Your task to perform on an android device: What's the news about the US stock market? Image 0: 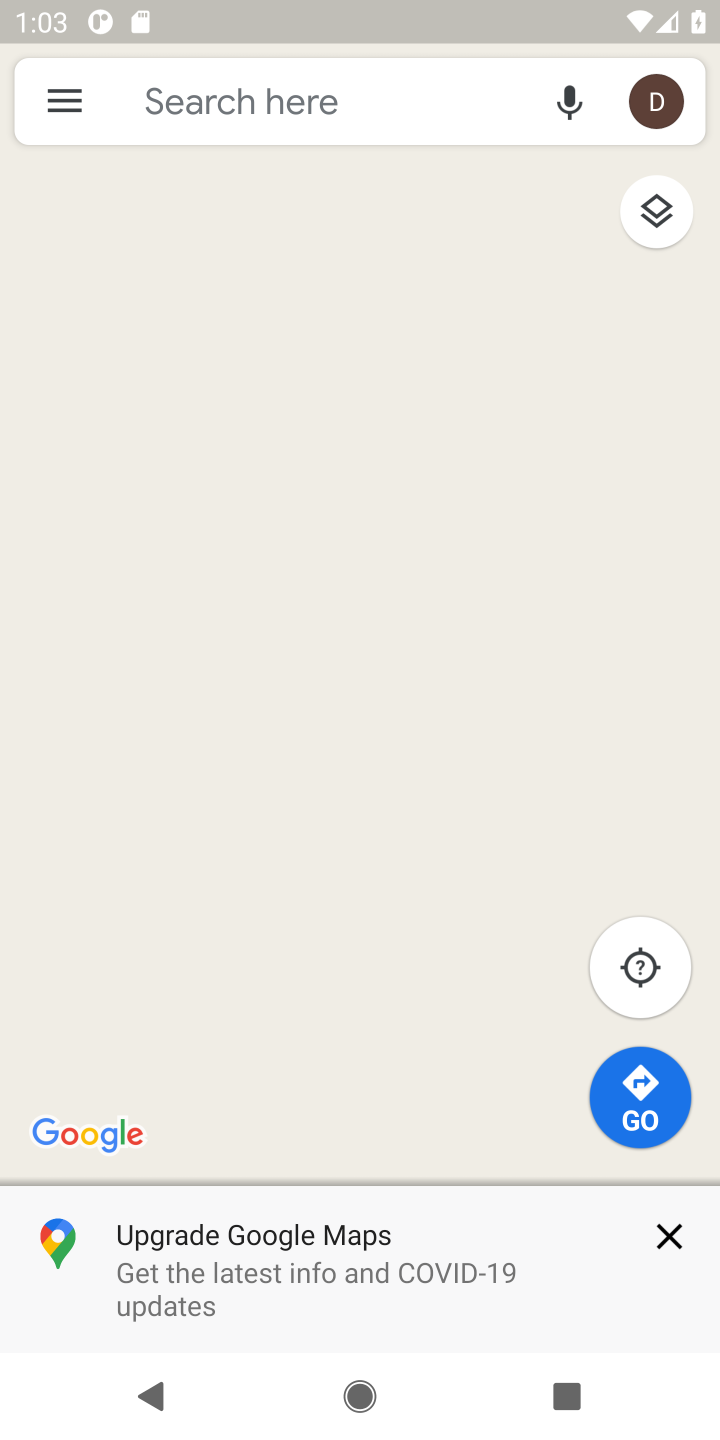
Step 0: press home button
Your task to perform on an android device: What's the news about the US stock market? Image 1: 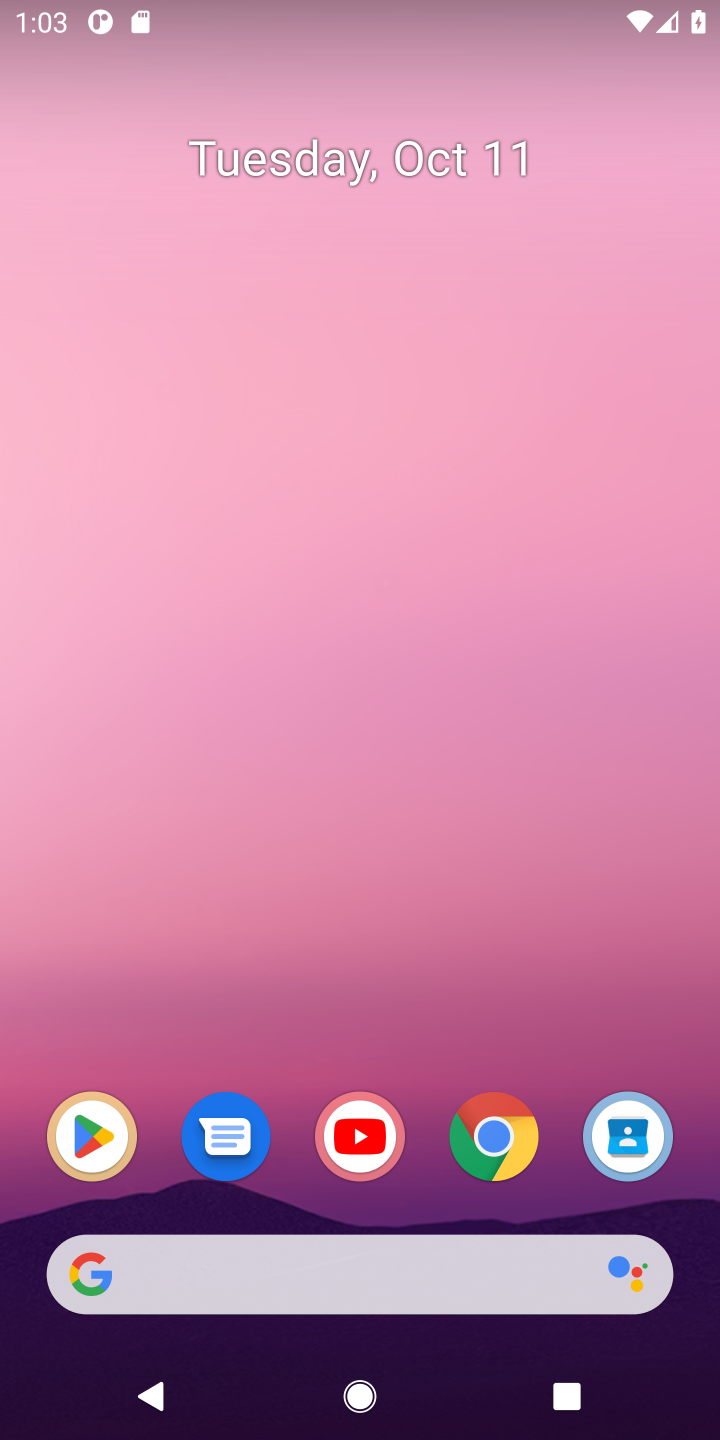
Step 1: click (279, 1274)
Your task to perform on an android device: What's the news about the US stock market? Image 2: 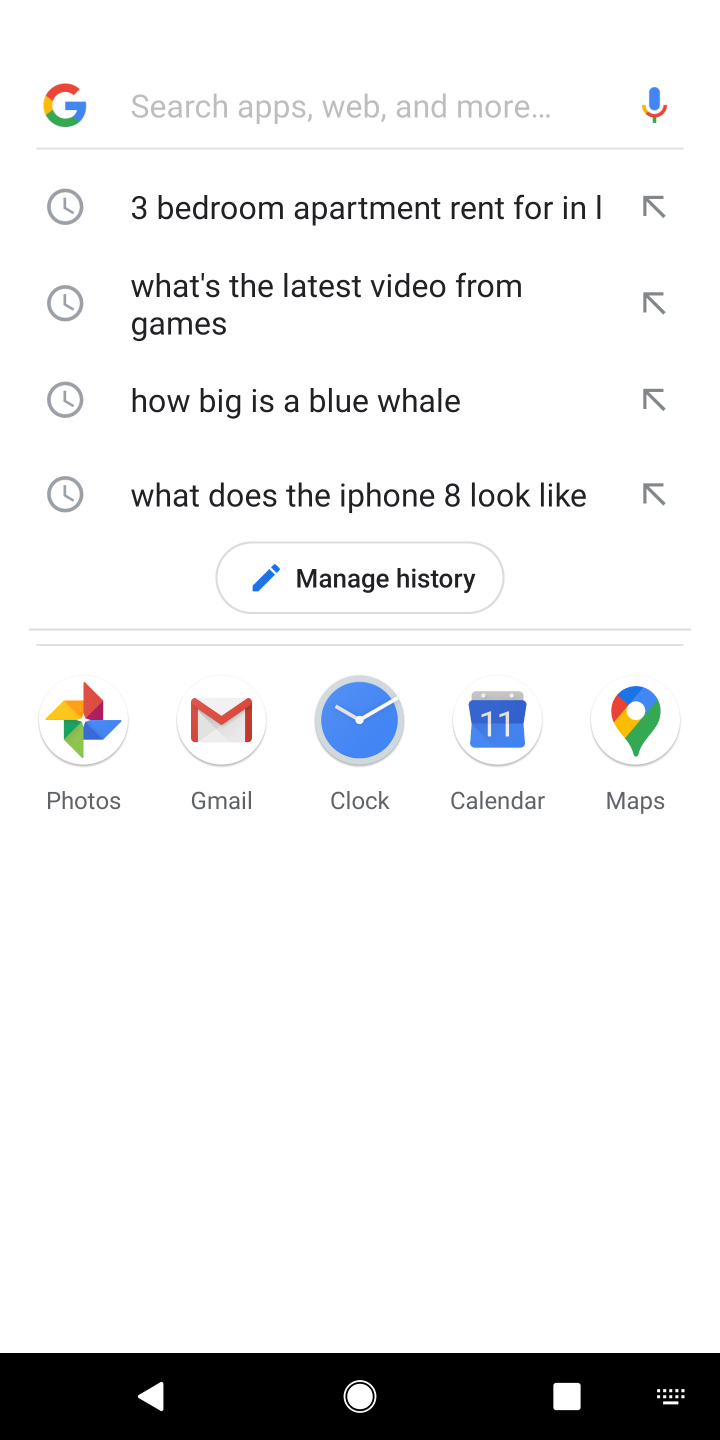
Step 2: press enter
Your task to perform on an android device: What's the news about the US stock market? Image 3: 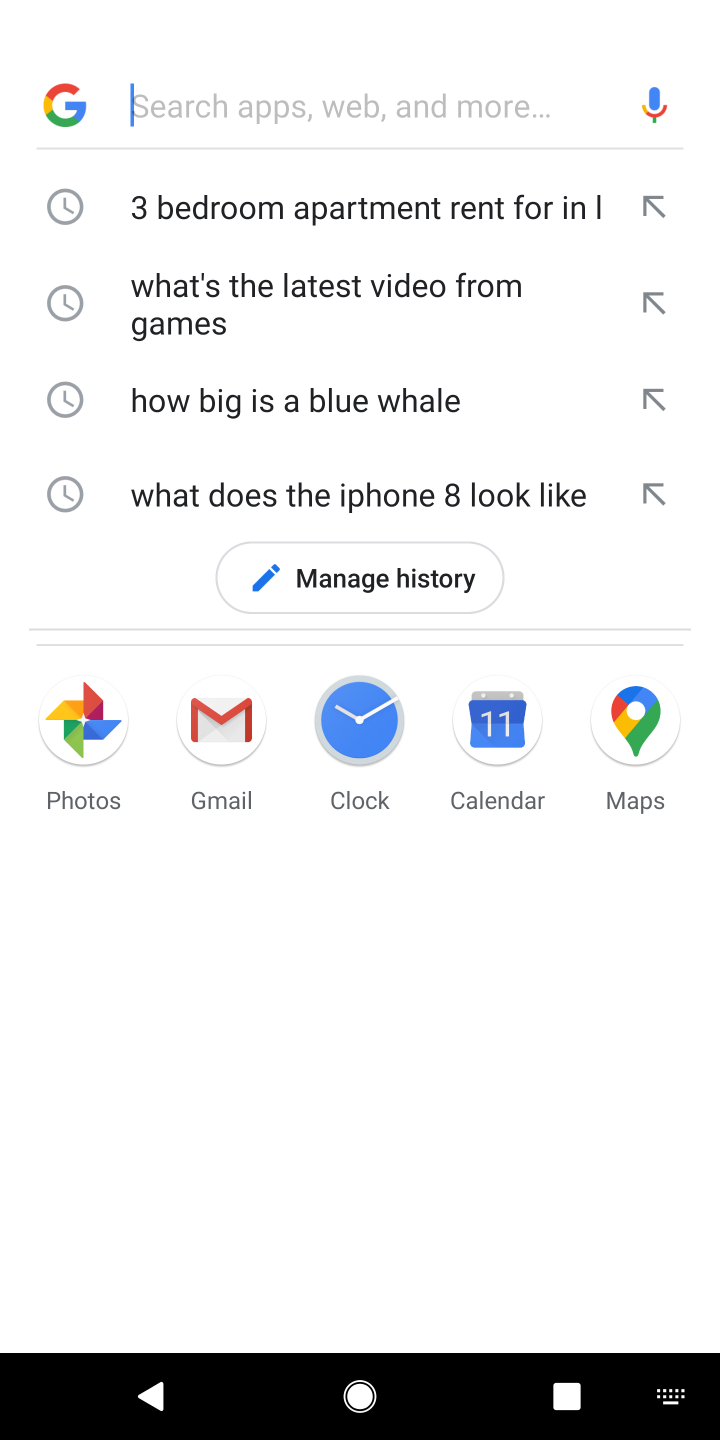
Step 3: type "What's the news about the US stock market"
Your task to perform on an android device: What's the news about the US stock market? Image 4: 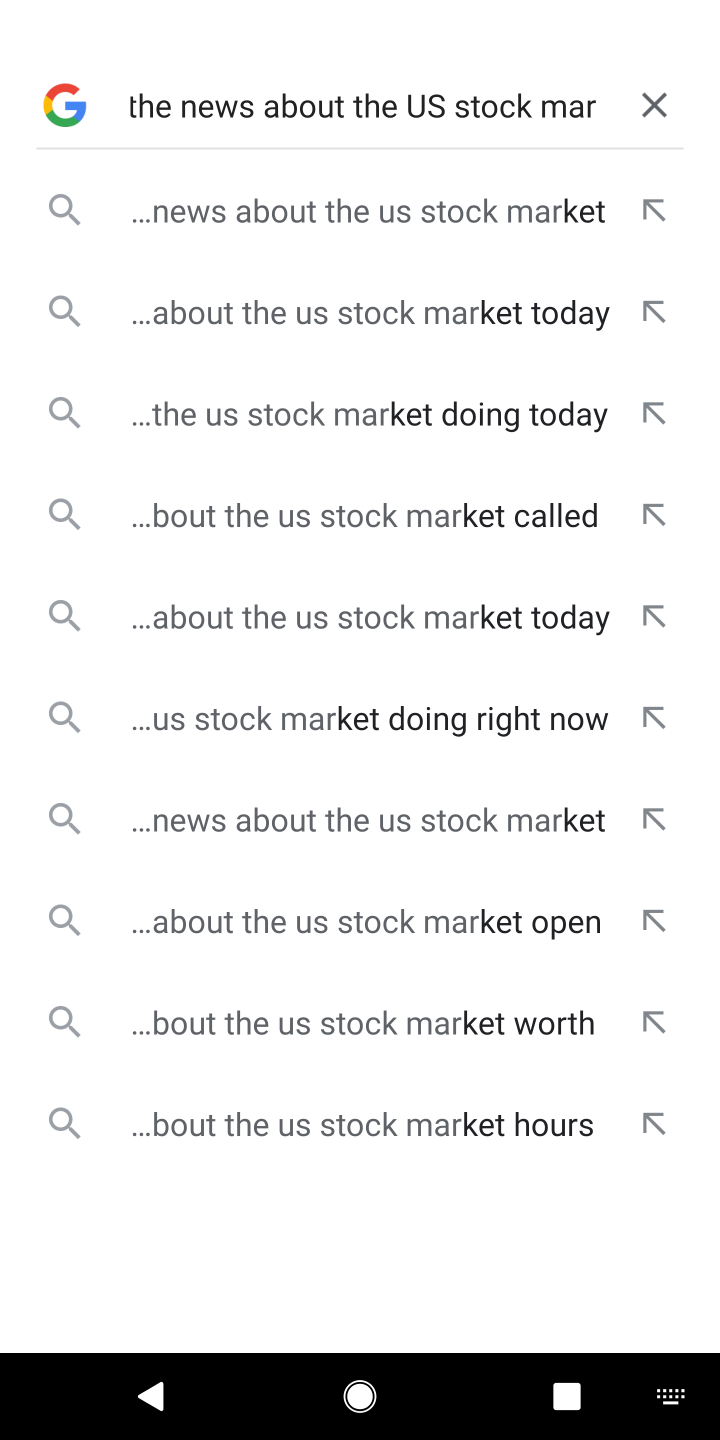
Step 4: press enter
Your task to perform on an android device: What's the news about the US stock market? Image 5: 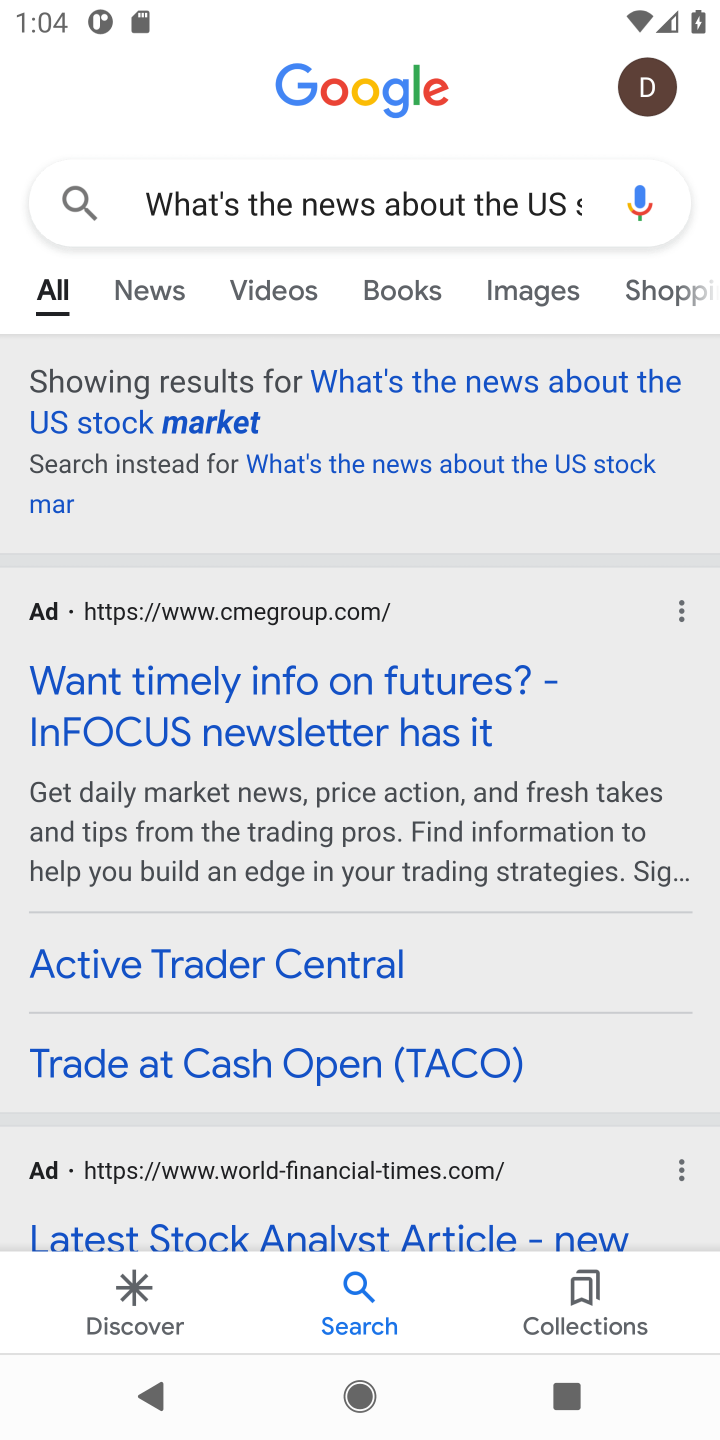
Step 5: drag from (542, 1084) to (510, 506)
Your task to perform on an android device: What's the news about the US stock market? Image 6: 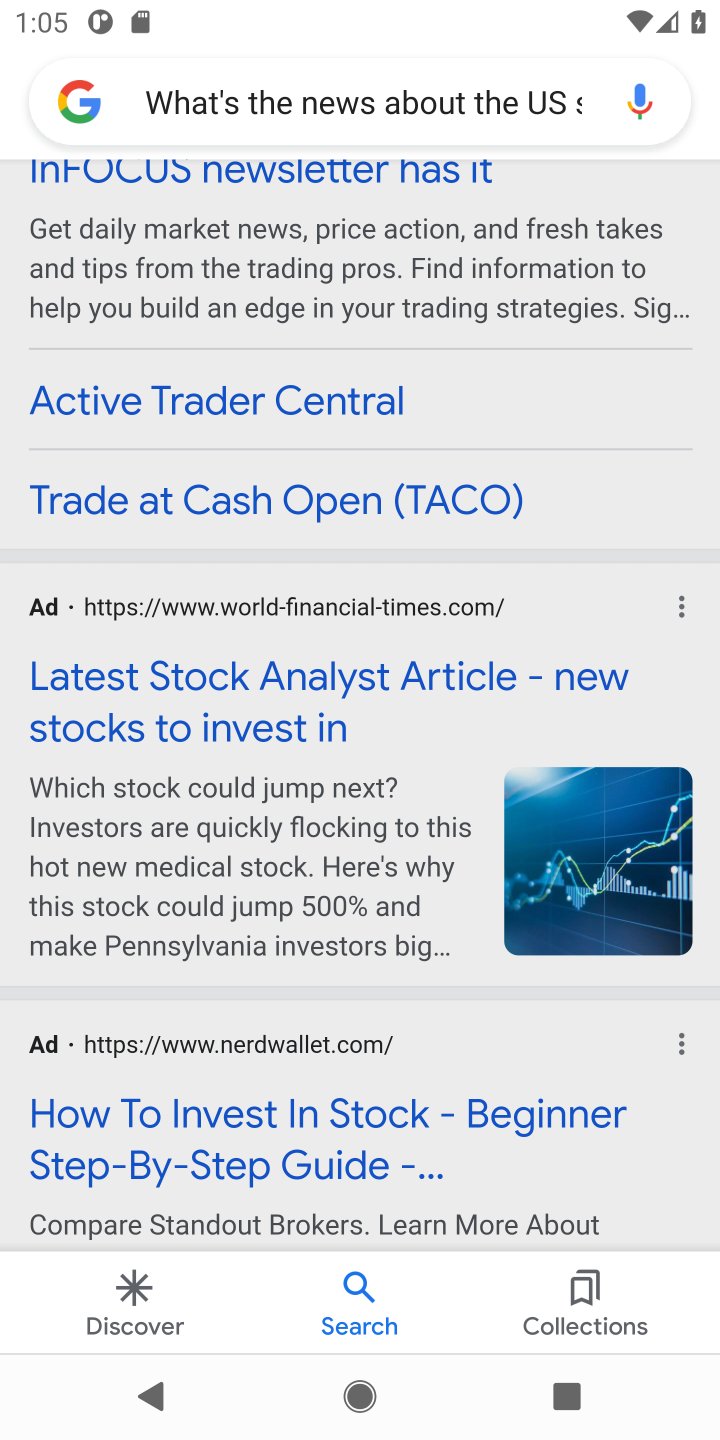
Step 6: drag from (336, 1093) to (334, 746)
Your task to perform on an android device: What's the news about the US stock market? Image 7: 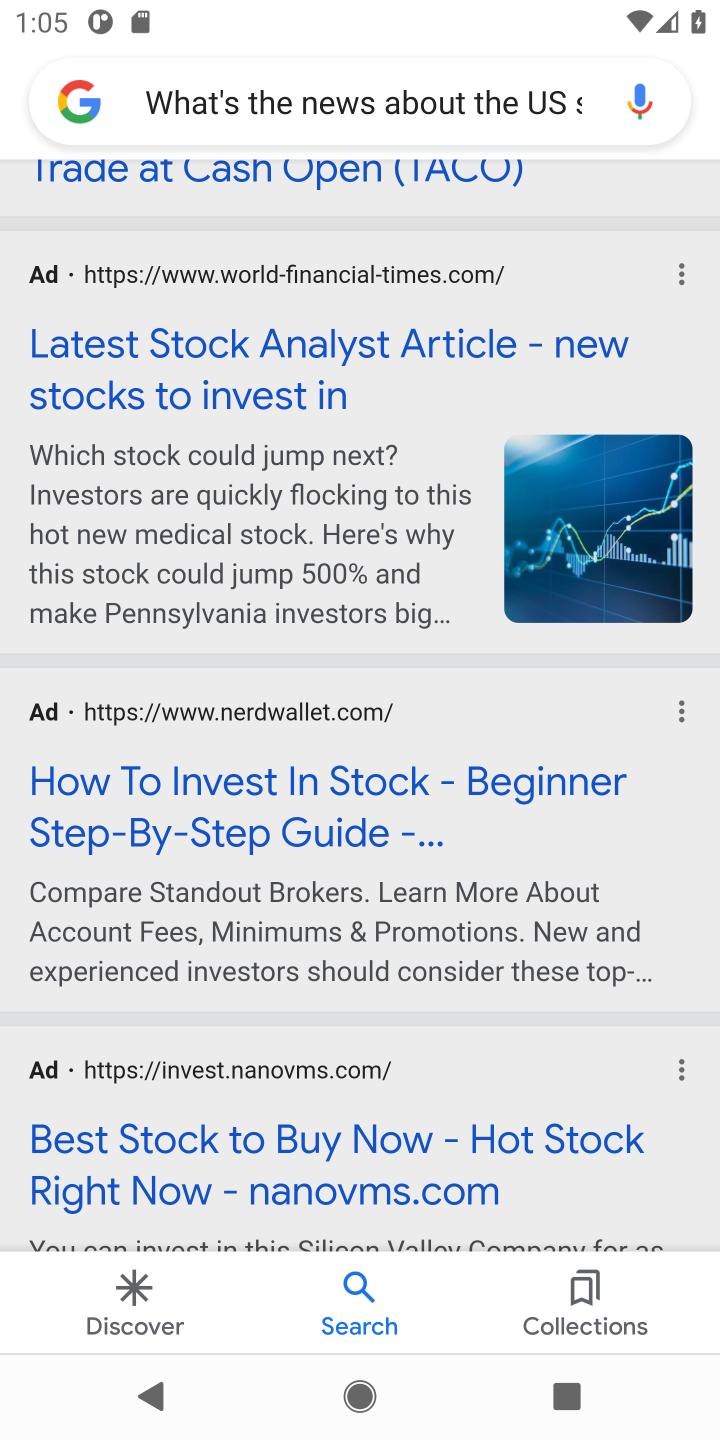
Step 7: click (277, 373)
Your task to perform on an android device: What's the news about the US stock market? Image 8: 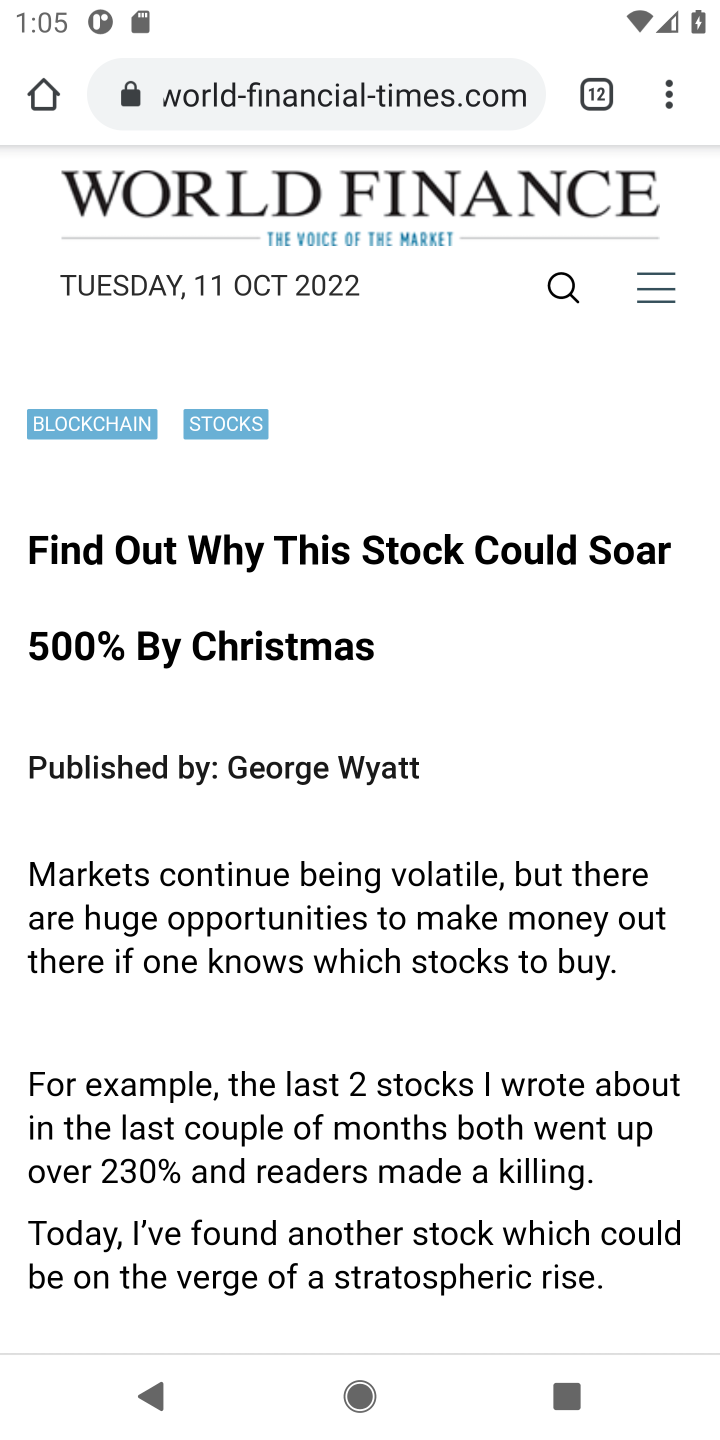
Step 8: task complete